Your task to perform on an android device: change keyboard looks Image 0: 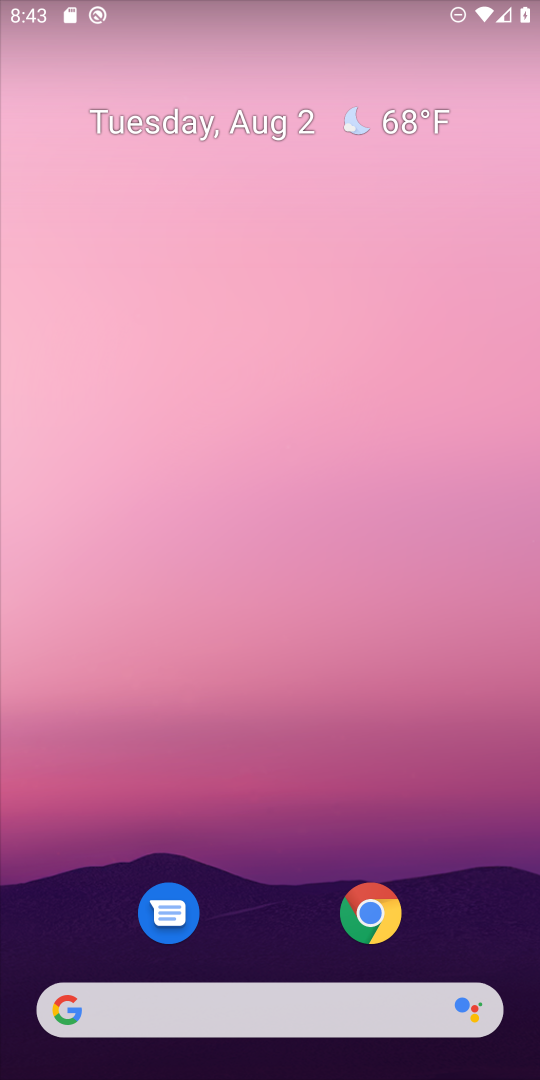
Step 0: drag from (277, 821) to (294, 247)
Your task to perform on an android device: change keyboard looks Image 1: 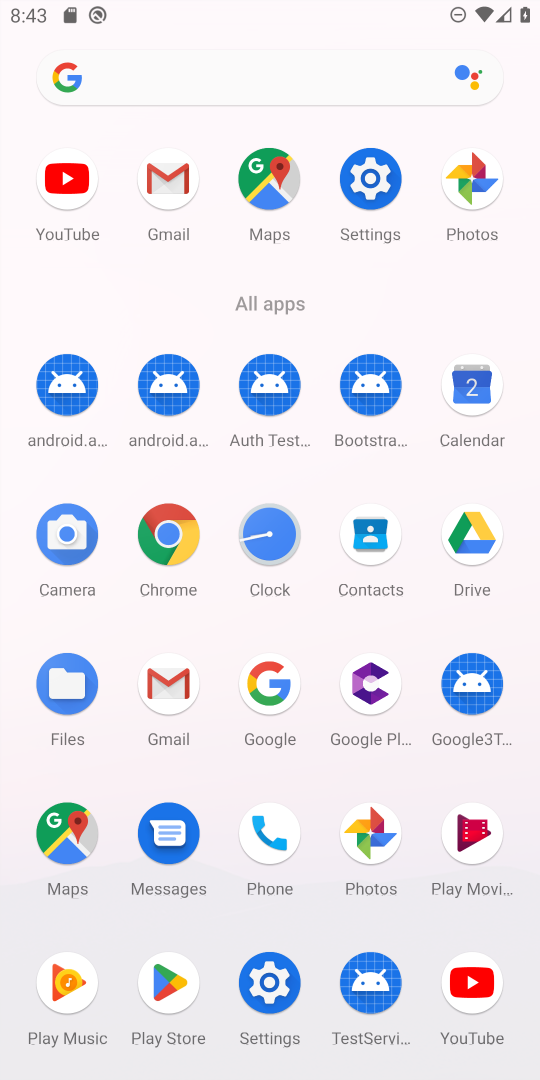
Step 1: click (369, 193)
Your task to perform on an android device: change keyboard looks Image 2: 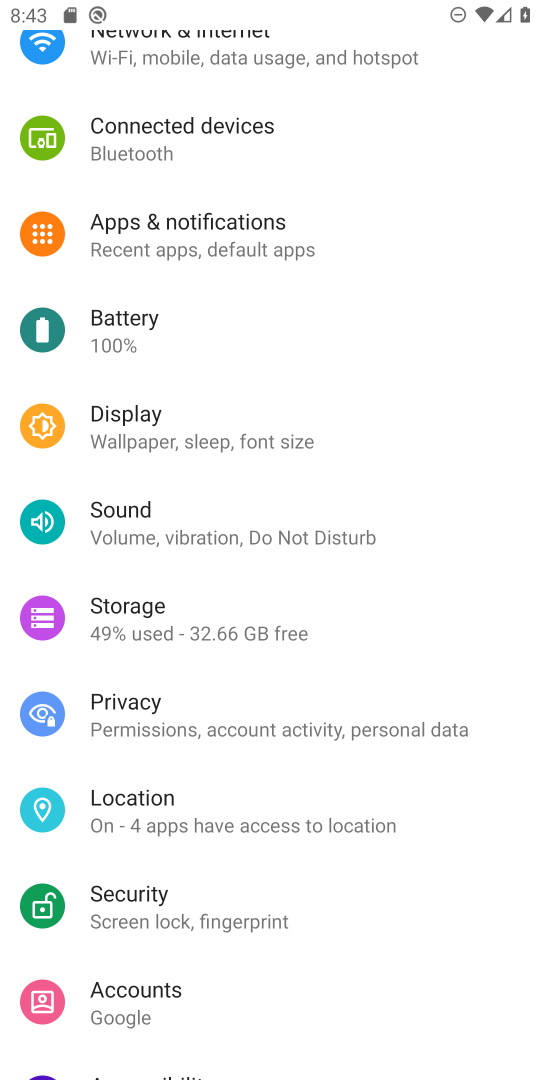
Step 2: task complete